Your task to perform on an android device: Open Reddit.com Image 0: 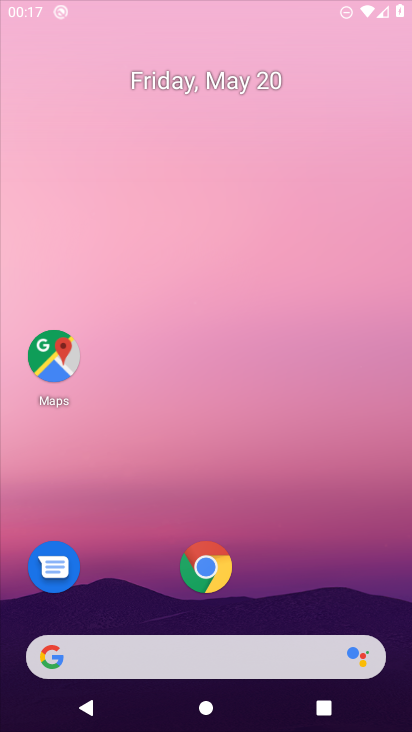
Step 0: press home button
Your task to perform on an android device: Open Reddit.com Image 1: 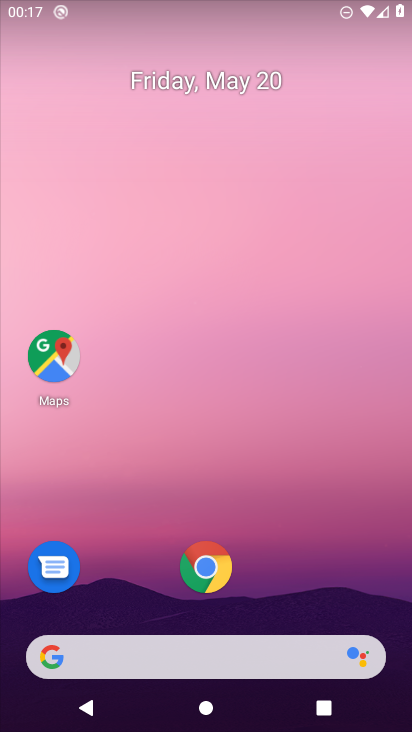
Step 1: click (207, 568)
Your task to perform on an android device: Open Reddit.com Image 2: 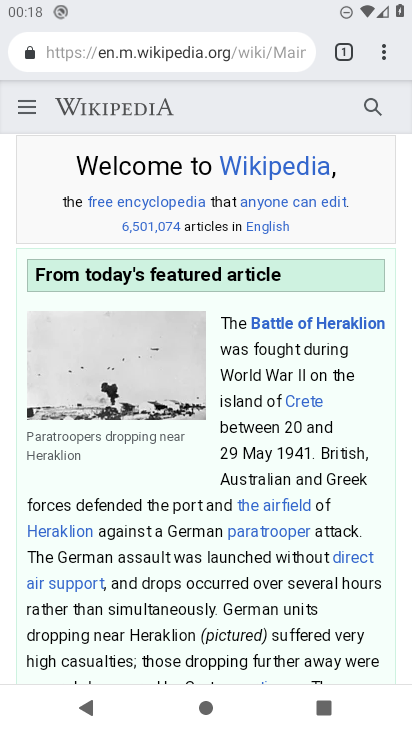
Step 2: click (346, 51)
Your task to perform on an android device: Open Reddit.com Image 3: 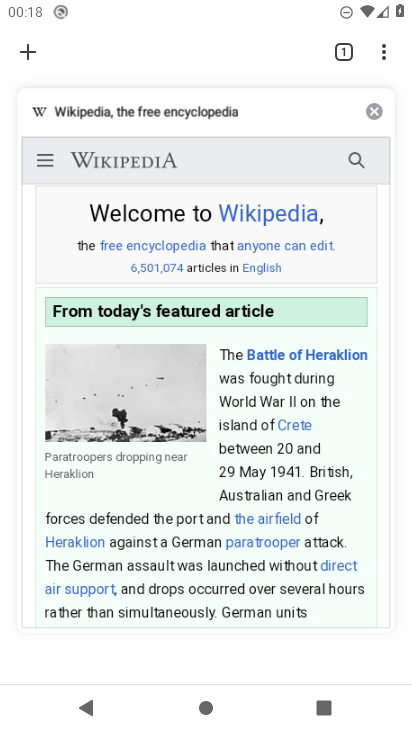
Step 3: click (375, 111)
Your task to perform on an android device: Open Reddit.com Image 4: 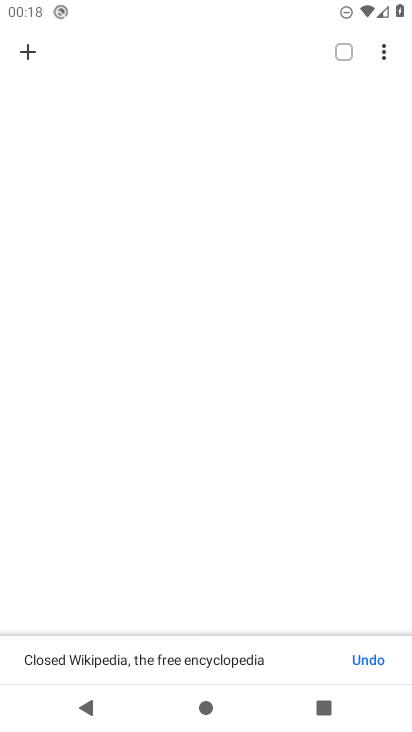
Step 4: click (26, 52)
Your task to perform on an android device: Open Reddit.com Image 5: 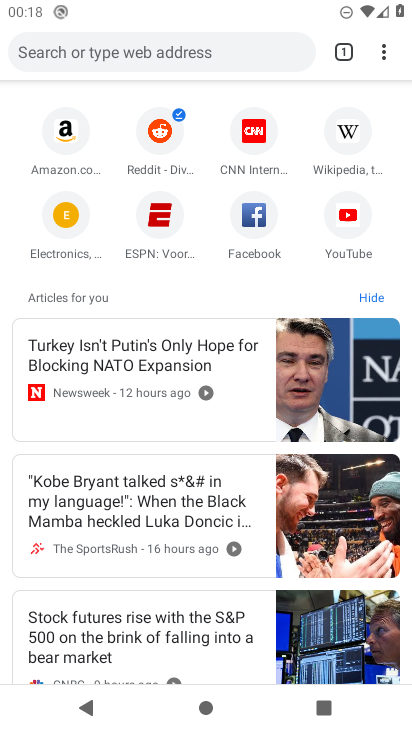
Step 5: click (162, 131)
Your task to perform on an android device: Open Reddit.com Image 6: 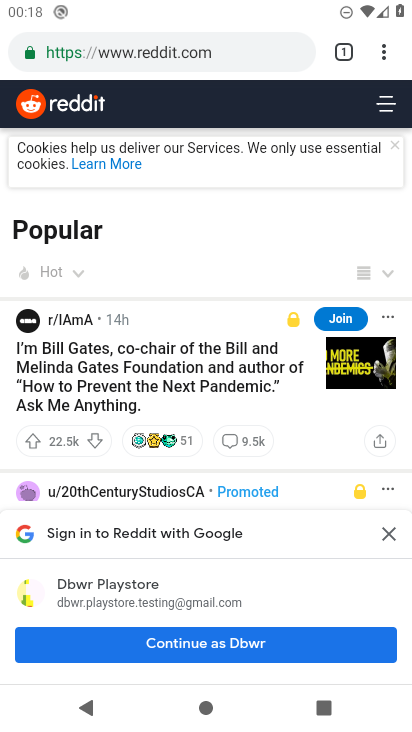
Step 6: task complete